Your task to perform on an android device: toggle data saver in the chrome app Image 0: 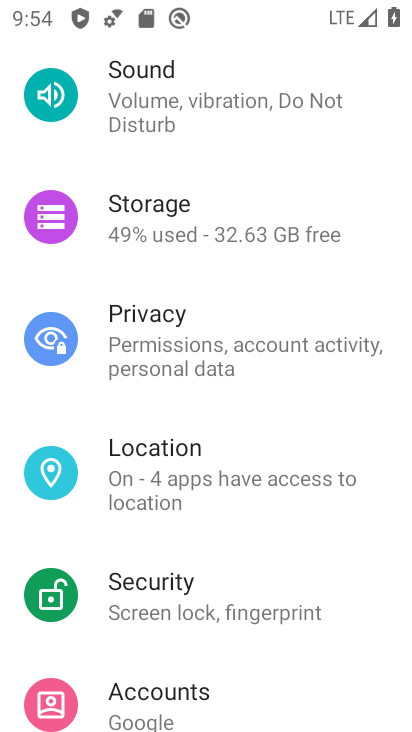
Step 0: drag from (282, 233) to (380, 699)
Your task to perform on an android device: toggle data saver in the chrome app Image 1: 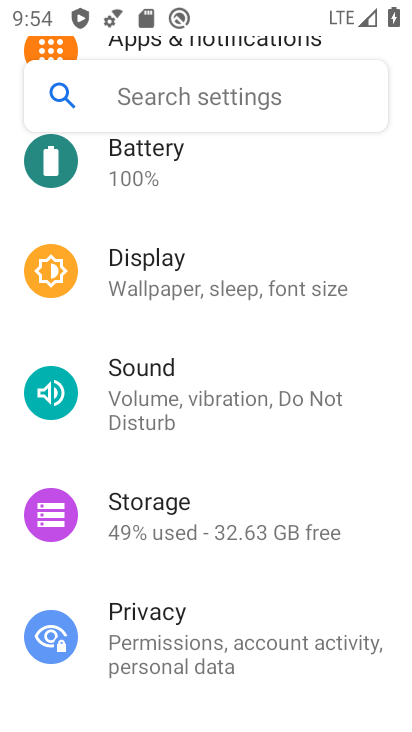
Step 1: drag from (300, 286) to (322, 697)
Your task to perform on an android device: toggle data saver in the chrome app Image 2: 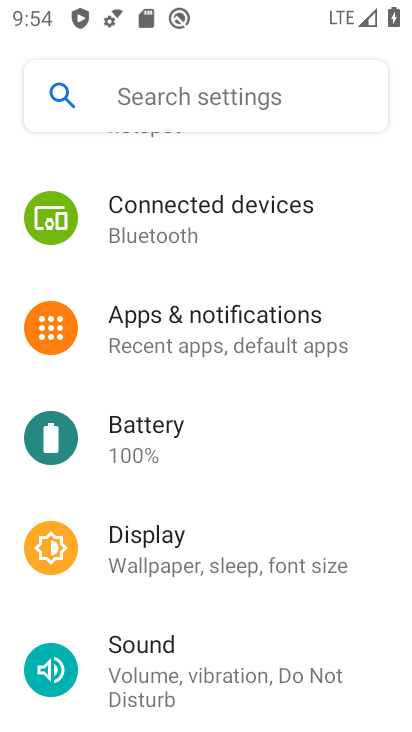
Step 2: drag from (292, 309) to (328, 614)
Your task to perform on an android device: toggle data saver in the chrome app Image 3: 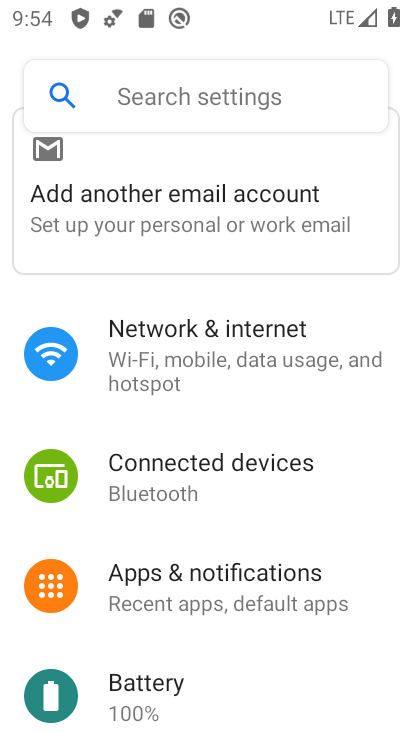
Step 3: drag from (288, 610) to (237, 277)
Your task to perform on an android device: toggle data saver in the chrome app Image 4: 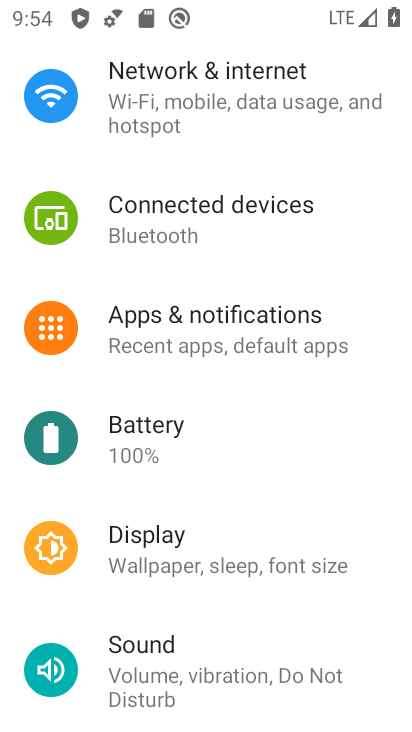
Step 4: drag from (225, 652) to (264, 318)
Your task to perform on an android device: toggle data saver in the chrome app Image 5: 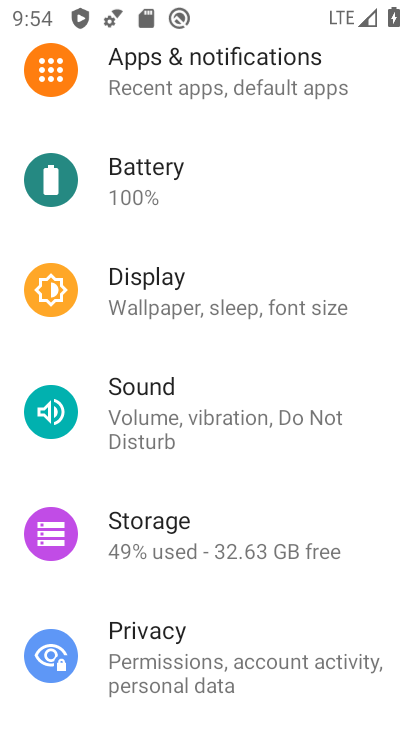
Step 5: drag from (243, 164) to (216, 649)
Your task to perform on an android device: toggle data saver in the chrome app Image 6: 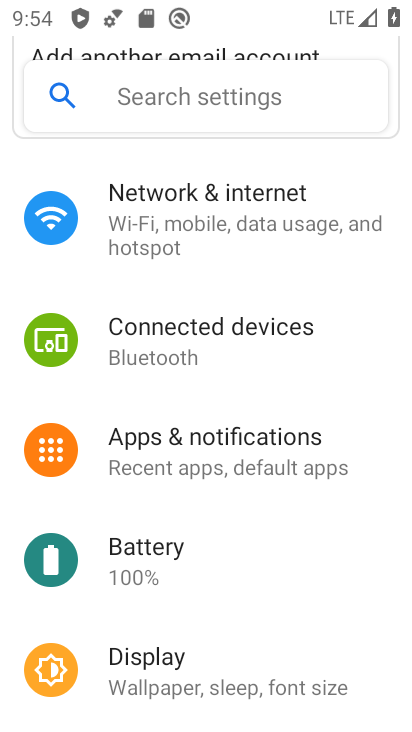
Step 6: drag from (235, 206) to (263, 560)
Your task to perform on an android device: toggle data saver in the chrome app Image 7: 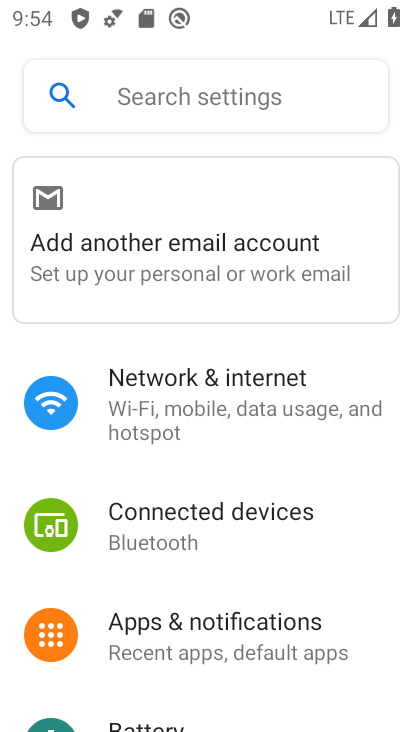
Step 7: drag from (271, 628) to (235, 308)
Your task to perform on an android device: toggle data saver in the chrome app Image 8: 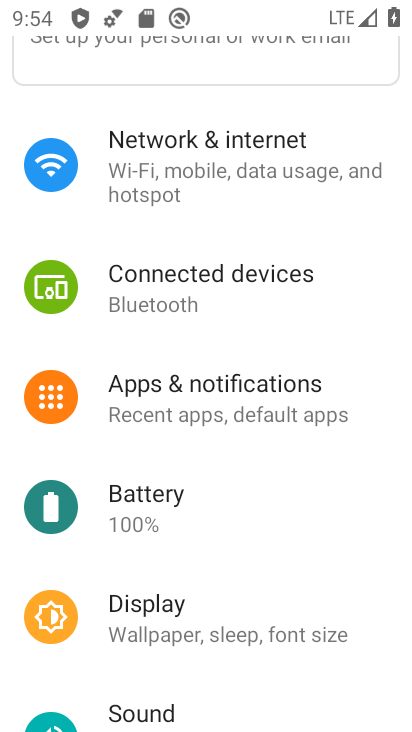
Step 8: drag from (230, 511) to (241, 157)
Your task to perform on an android device: toggle data saver in the chrome app Image 9: 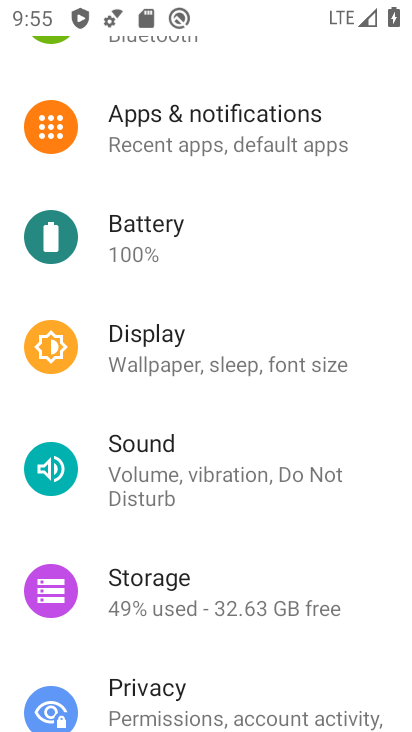
Step 9: drag from (242, 581) to (247, 242)
Your task to perform on an android device: toggle data saver in the chrome app Image 10: 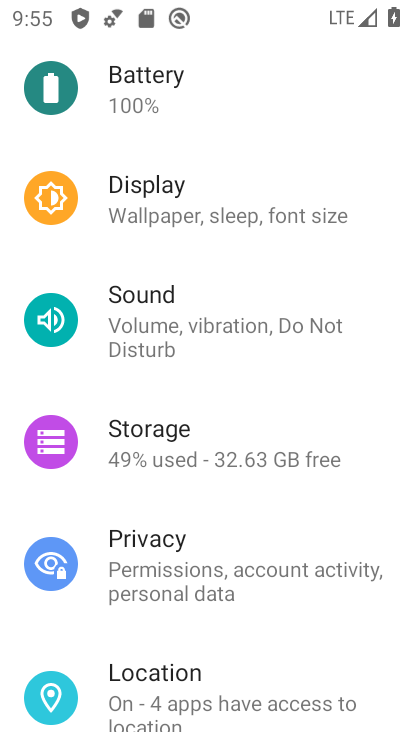
Step 10: drag from (278, 616) to (246, 351)
Your task to perform on an android device: toggle data saver in the chrome app Image 11: 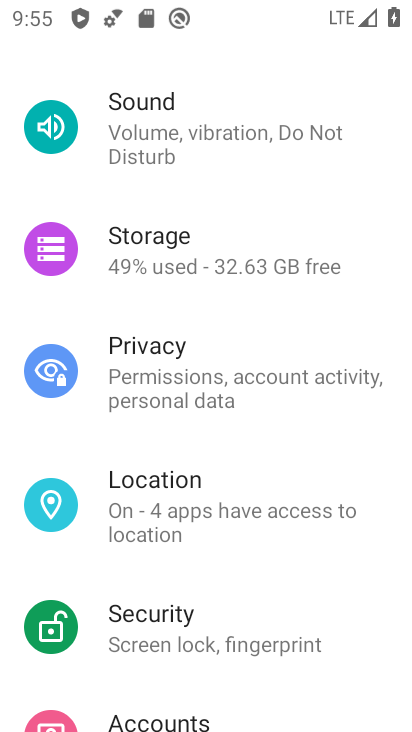
Step 11: drag from (220, 267) to (208, 722)
Your task to perform on an android device: toggle data saver in the chrome app Image 12: 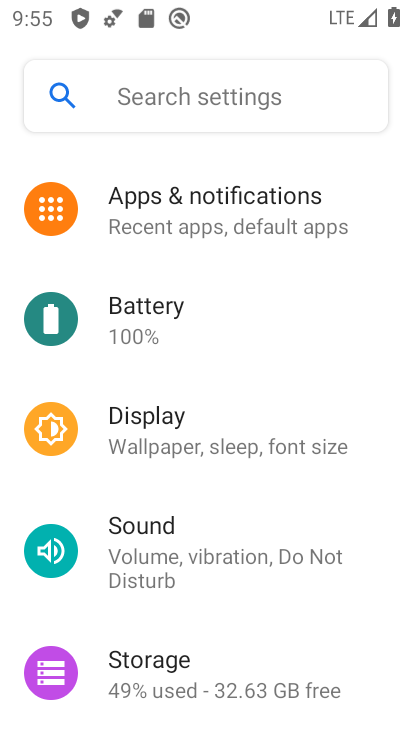
Step 12: drag from (249, 369) to (276, 727)
Your task to perform on an android device: toggle data saver in the chrome app Image 13: 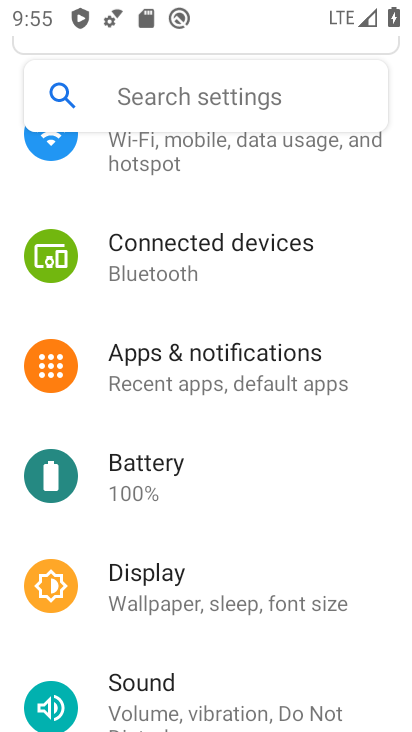
Step 13: drag from (214, 250) to (288, 646)
Your task to perform on an android device: toggle data saver in the chrome app Image 14: 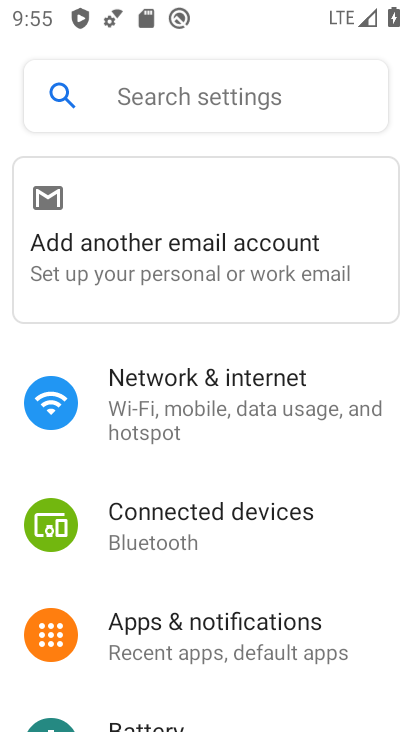
Step 14: drag from (288, 645) to (213, 274)
Your task to perform on an android device: toggle data saver in the chrome app Image 15: 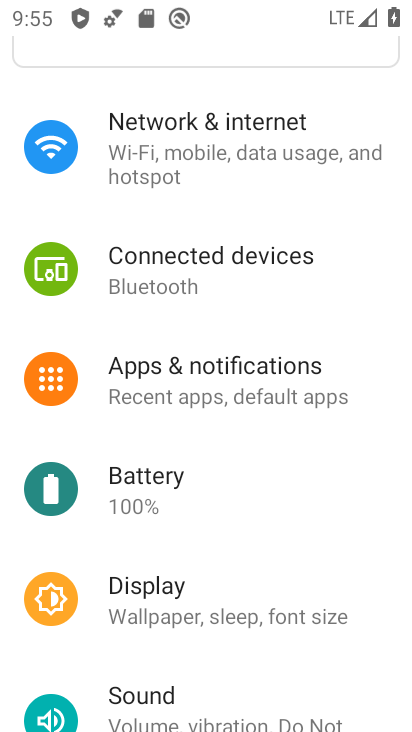
Step 15: press home button
Your task to perform on an android device: toggle data saver in the chrome app Image 16: 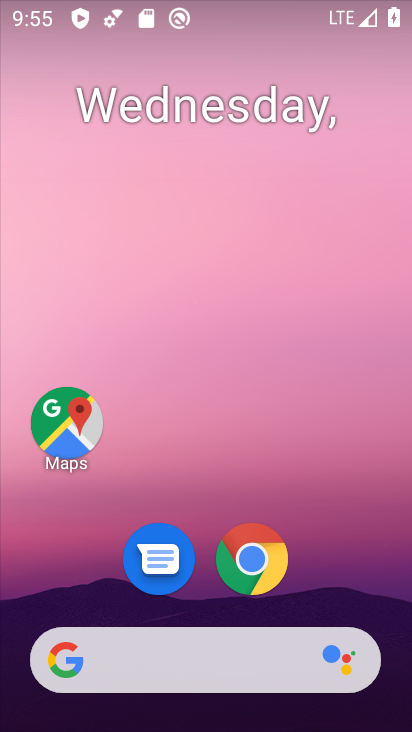
Step 16: drag from (371, 557) to (384, 59)
Your task to perform on an android device: toggle data saver in the chrome app Image 17: 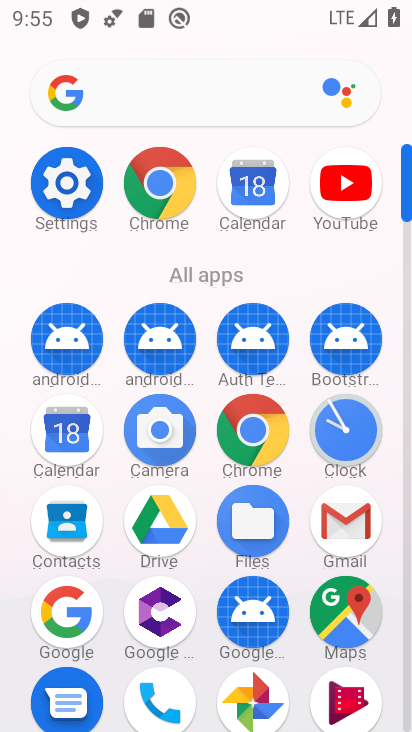
Step 17: click (176, 176)
Your task to perform on an android device: toggle data saver in the chrome app Image 18: 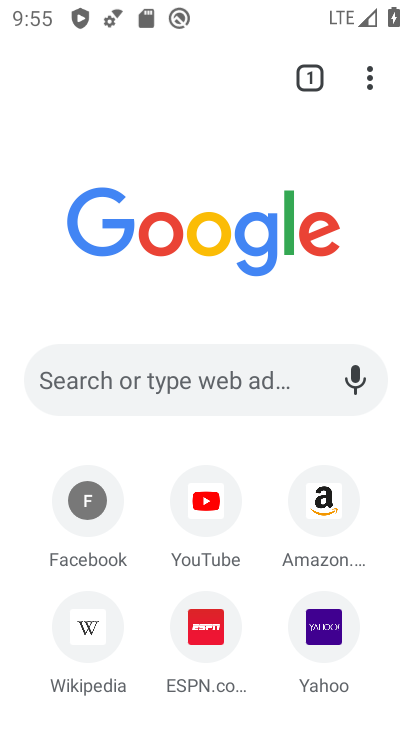
Step 18: drag from (374, 84) to (189, 638)
Your task to perform on an android device: toggle data saver in the chrome app Image 19: 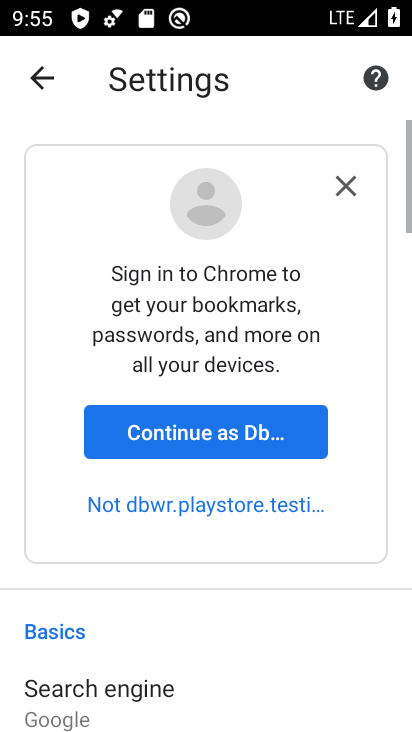
Step 19: drag from (200, 690) to (214, 180)
Your task to perform on an android device: toggle data saver in the chrome app Image 20: 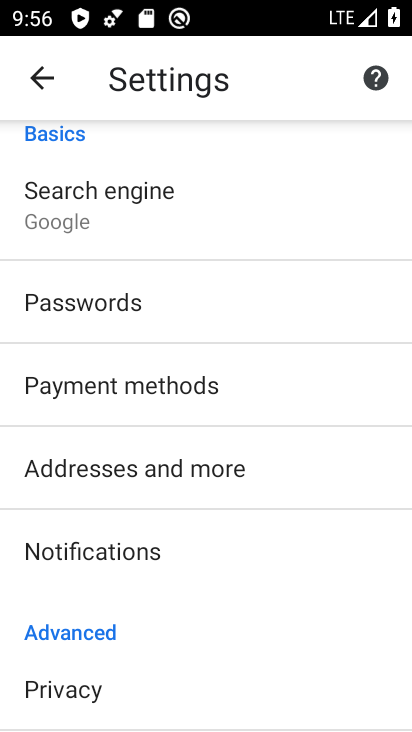
Step 20: drag from (240, 638) to (207, 231)
Your task to perform on an android device: toggle data saver in the chrome app Image 21: 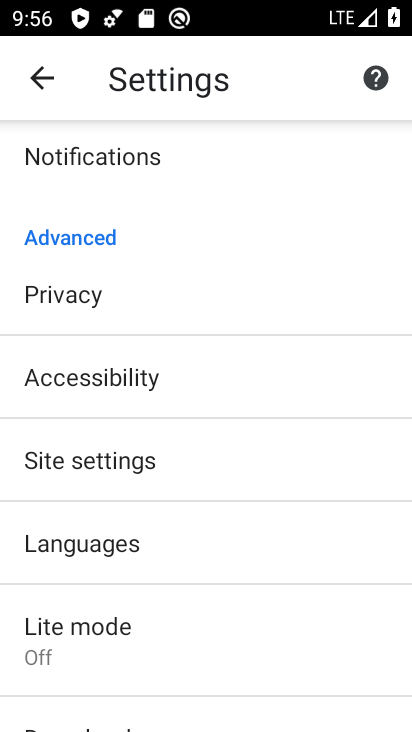
Step 21: click (106, 548)
Your task to perform on an android device: toggle data saver in the chrome app Image 22: 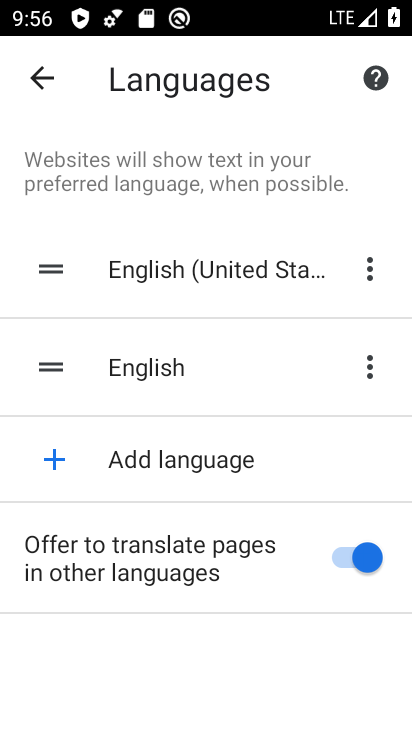
Step 22: click (355, 569)
Your task to perform on an android device: toggle data saver in the chrome app Image 23: 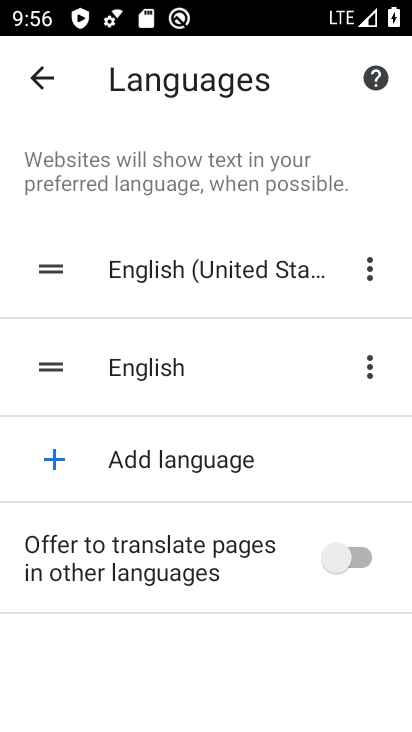
Step 23: task complete